Your task to perform on an android device: Go to network settings Image 0: 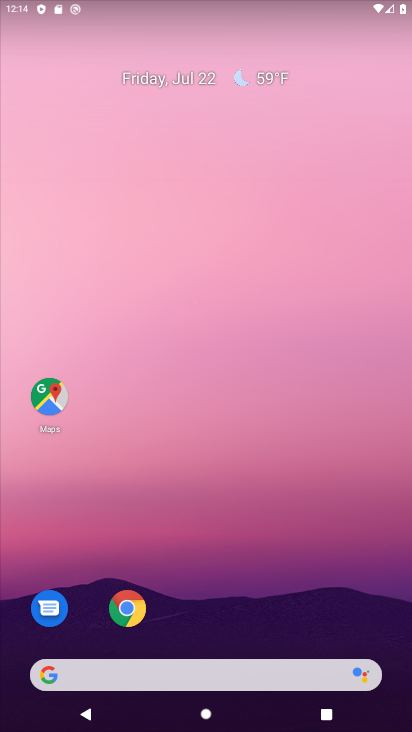
Step 0: drag from (240, 609) to (249, 22)
Your task to perform on an android device: Go to network settings Image 1: 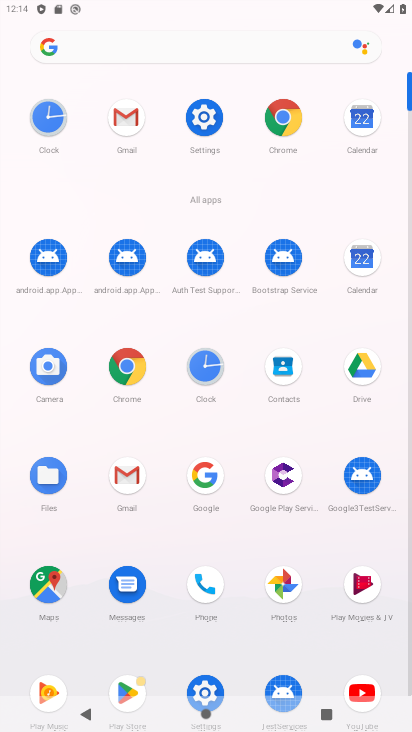
Step 1: click (214, 125)
Your task to perform on an android device: Go to network settings Image 2: 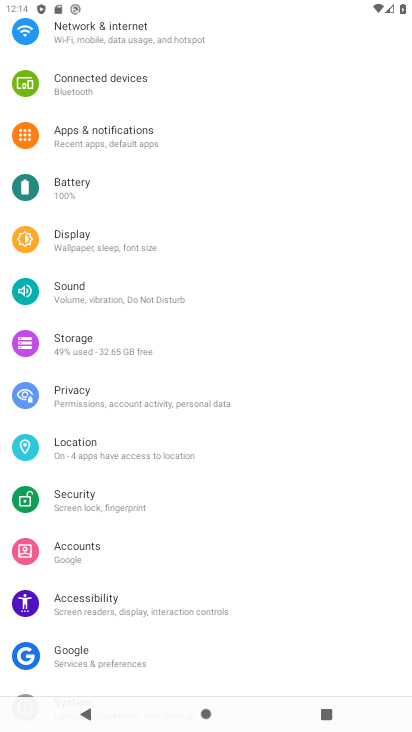
Step 2: drag from (137, 64) to (133, 494)
Your task to perform on an android device: Go to network settings Image 3: 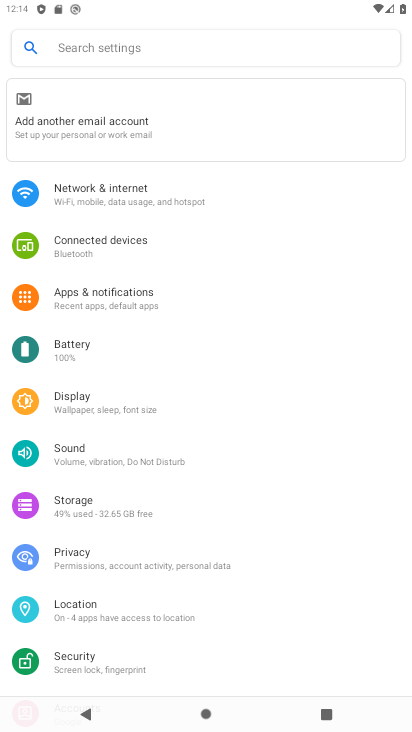
Step 3: click (105, 199)
Your task to perform on an android device: Go to network settings Image 4: 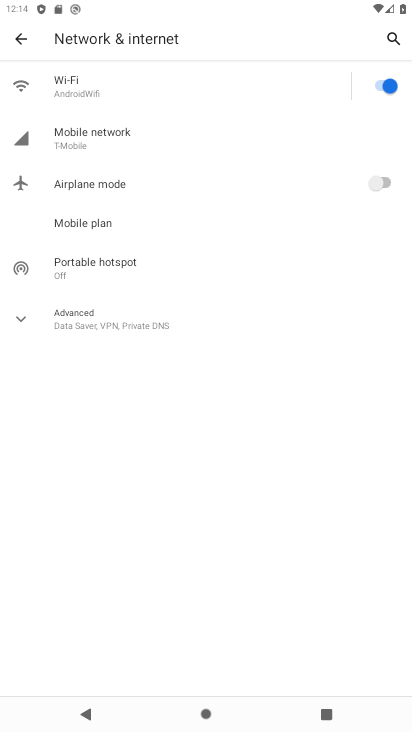
Step 4: task complete